Your task to perform on an android device: toggle show notifications on the lock screen Image 0: 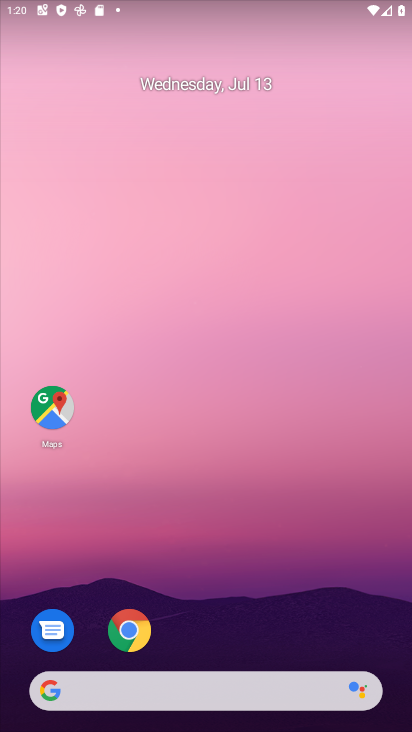
Step 0: drag from (384, 657) to (336, 0)
Your task to perform on an android device: toggle show notifications on the lock screen Image 1: 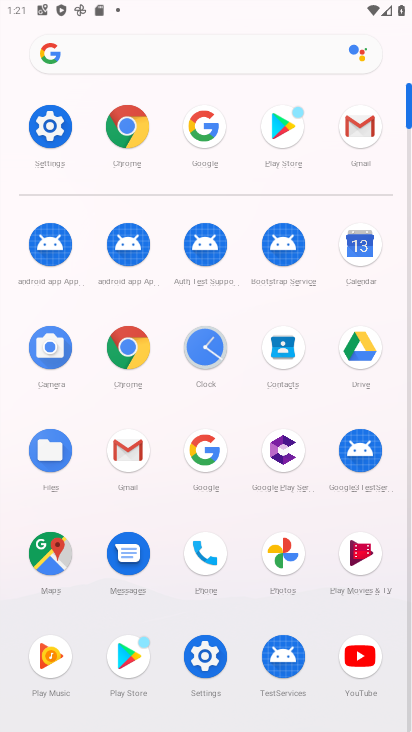
Step 1: click (206, 642)
Your task to perform on an android device: toggle show notifications on the lock screen Image 2: 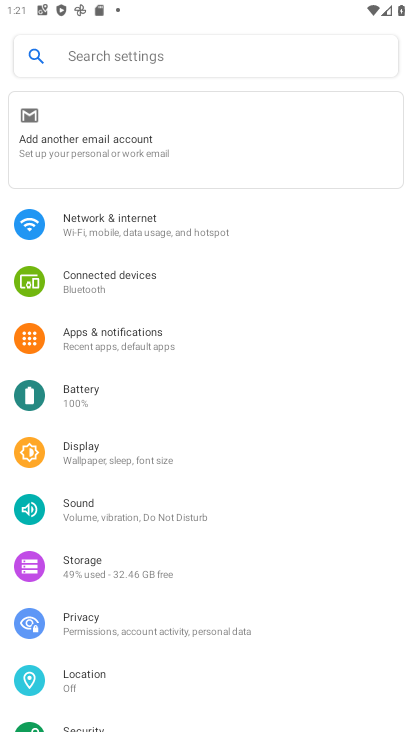
Step 2: click (150, 330)
Your task to perform on an android device: toggle show notifications on the lock screen Image 3: 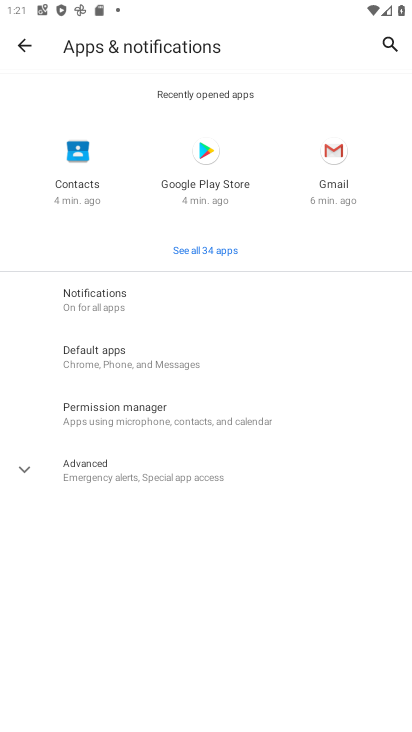
Step 3: click (60, 473)
Your task to perform on an android device: toggle show notifications on the lock screen Image 4: 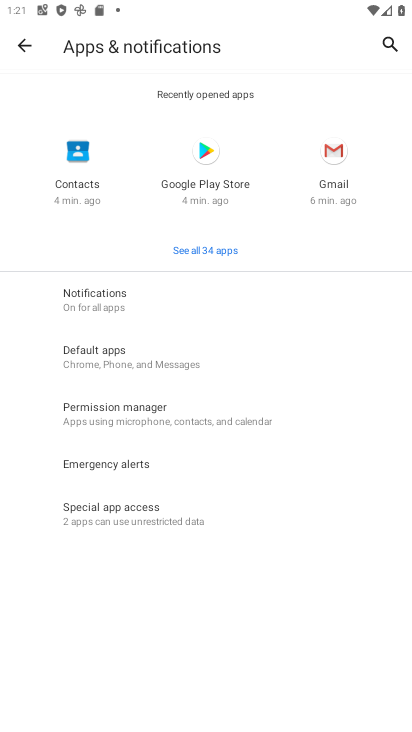
Step 4: click (163, 294)
Your task to perform on an android device: toggle show notifications on the lock screen Image 5: 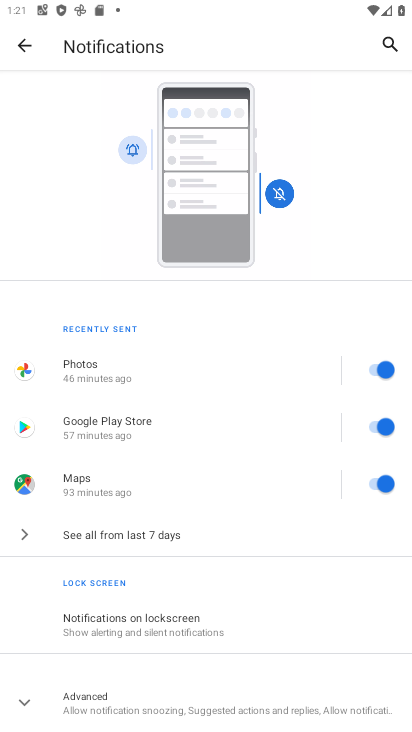
Step 5: click (156, 625)
Your task to perform on an android device: toggle show notifications on the lock screen Image 6: 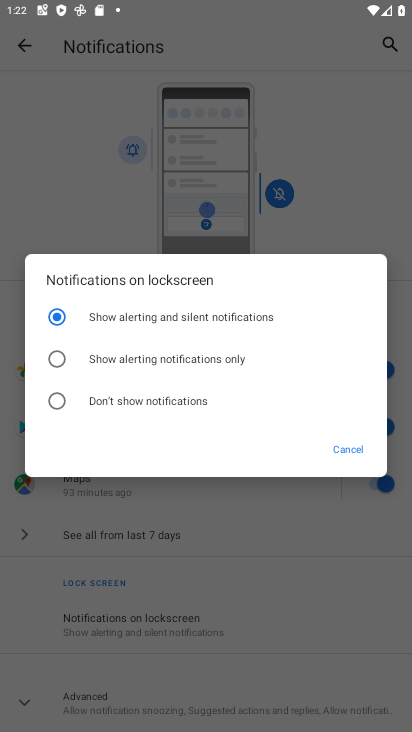
Step 6: click (86, 406)
Your task to perform on an android device: toggle show notifications on the lock screen Image 7: 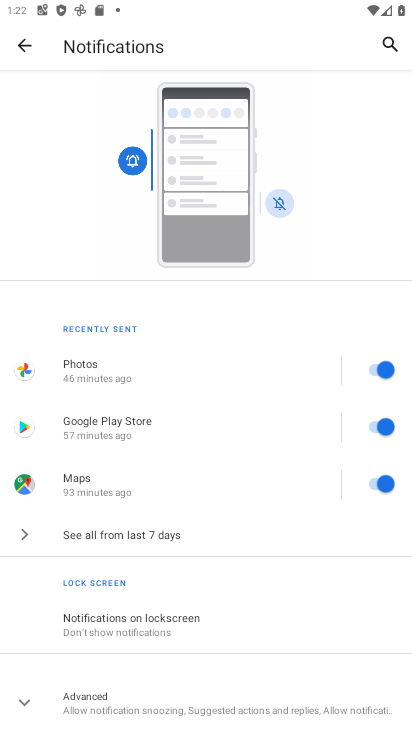
Step 7: task complete